Your task to perform on an android device: turn on priority inbox in the gmail app Image 0: 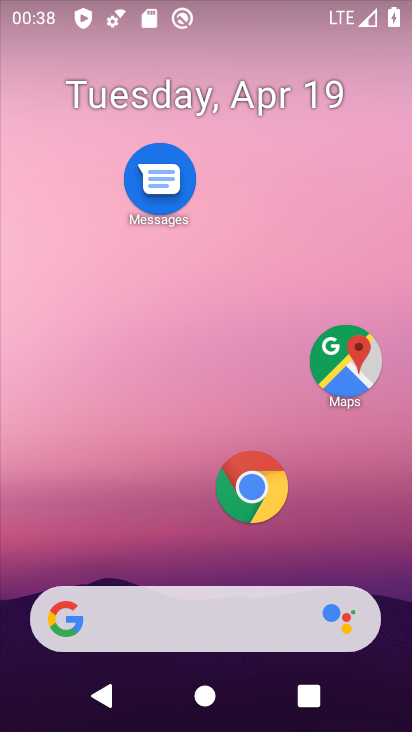
Step 0: drag from (170, 538) to (144, 4)
Your task to perform on an android device: turn on priority inbox in the gmail app Image 1: 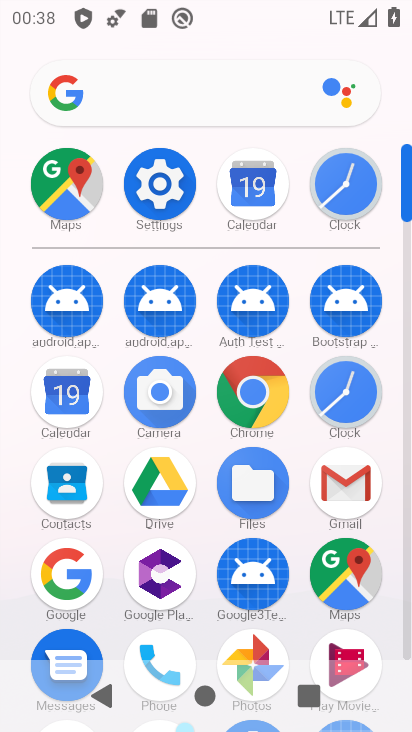
Step 1: click (337, 483)
Your task to perform on an android device: turn on priority inbox in the gmail app Image 2: 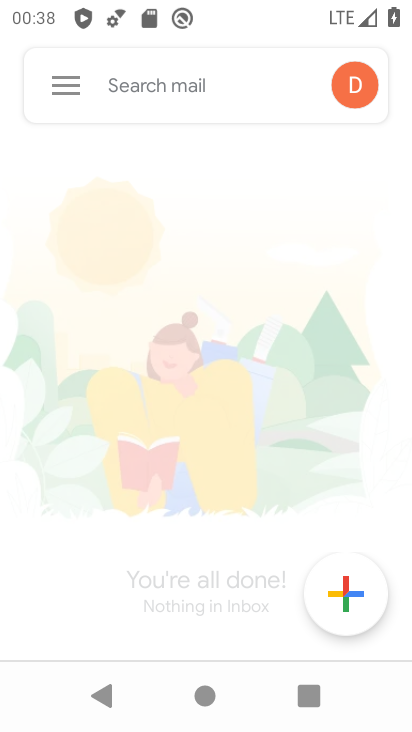
Step 2: click (70, 87)
Your task to perform on an android device: turn on priority inbox in the gmail app Image 3: 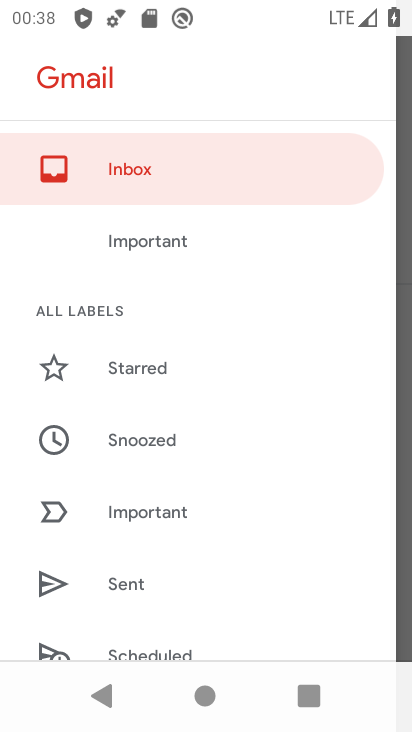
Step 3: drag from (231, 544) to (259, 18)
Your task to perform on an android device: turn on priority inbox in the gmail app Image 4: 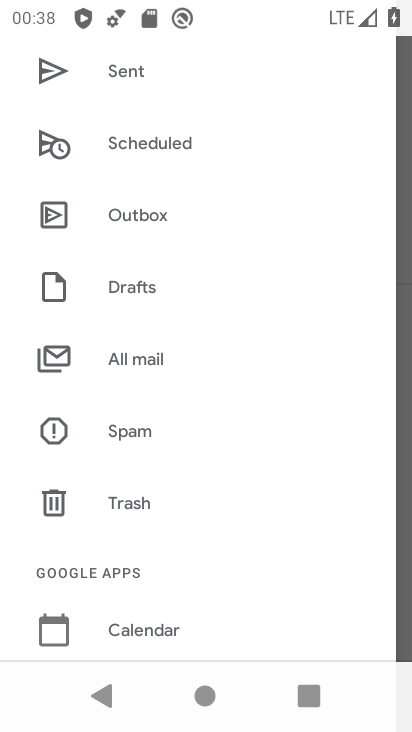
Step 4: drag from (217, 581) to (210, 44)
Your task to perform on an android device: turn on priority inbox in the gmail app Image 5: 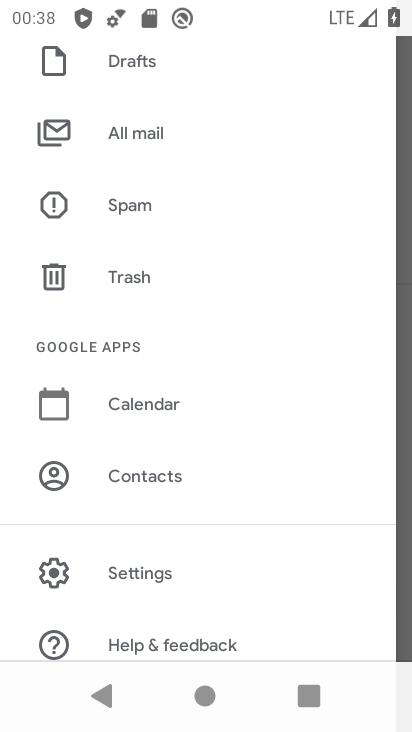
Step 5: click (131, 573)
Your task to perform on an android device: turn on priority inbox in the gmail app Image 6: 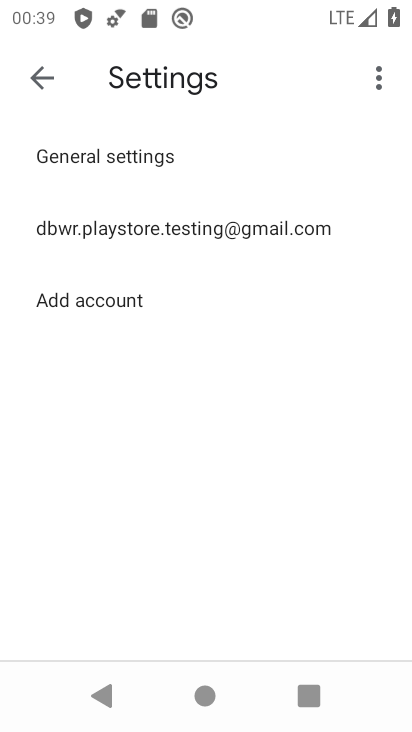
Step 6: click (109, 233)
Your task to perform on an android device: turn on priority inbox in the gmail app Image 7: 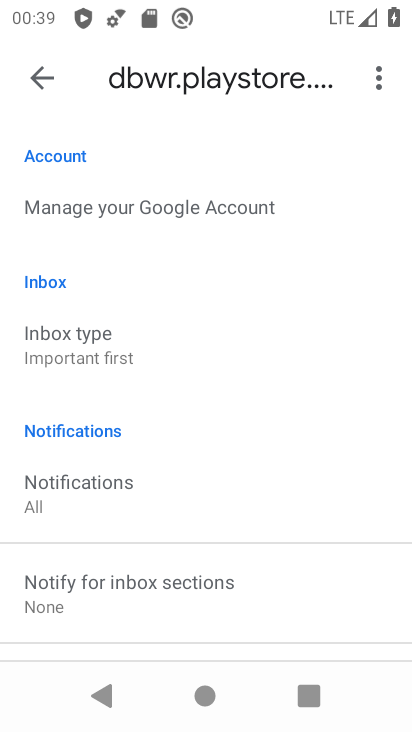
Step 7: click (63, 339)
Your task to perform on an android device: turn on priority inbox in the gmail app Image 8: 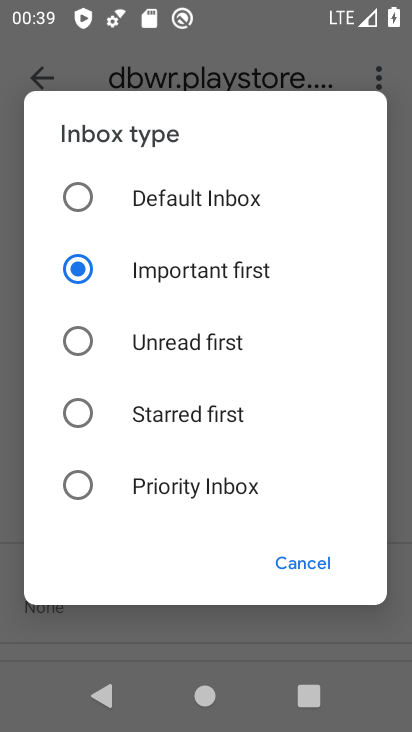
Step 8: click (82, 488)
Your task to perform on an android device: turn on priority inbox in the gmail app Image 9: 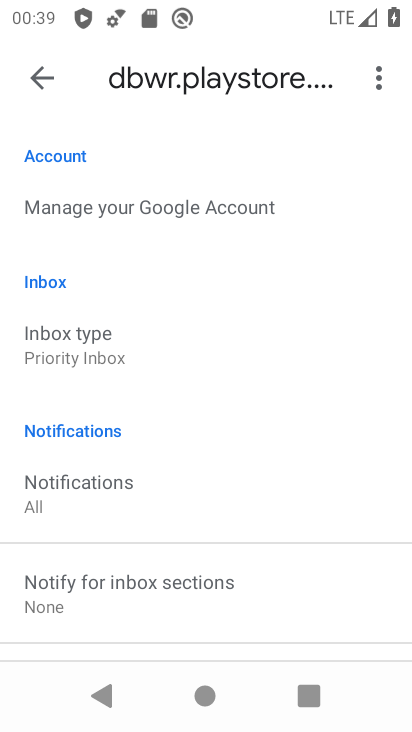
Step 9: task complete